Your task to perform on an android device: Turn on the flashlight Image 0: 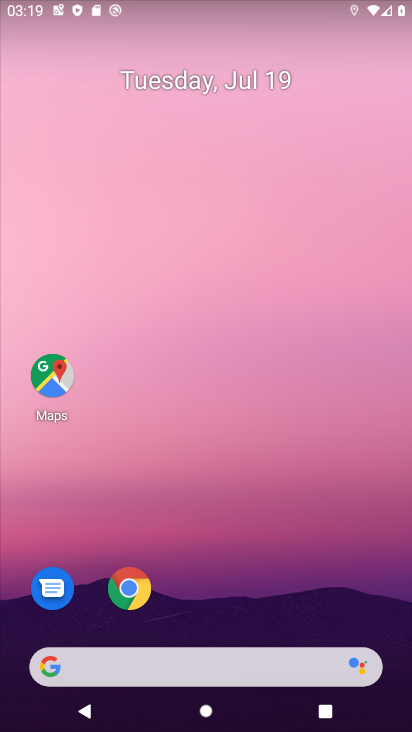
Step 0: drag from (162, 237) to (149, 167)
Your task to perform on an android device: Turn on the flashlight Image 1: 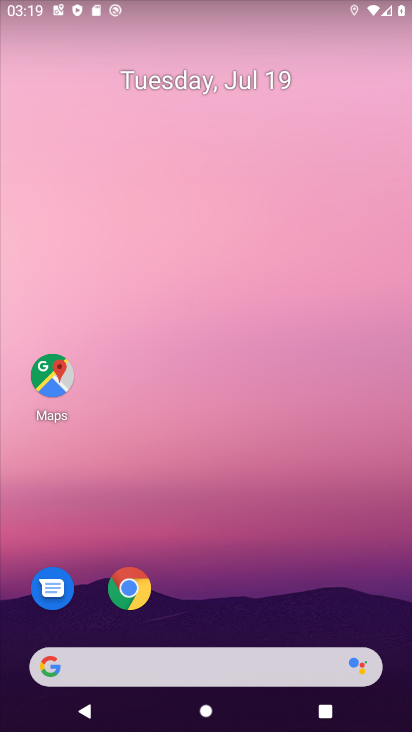
Step 1: drag from (221, 568) to (189, 71)
Your task to perform on an android device: Turn on the flashlight Image 2: 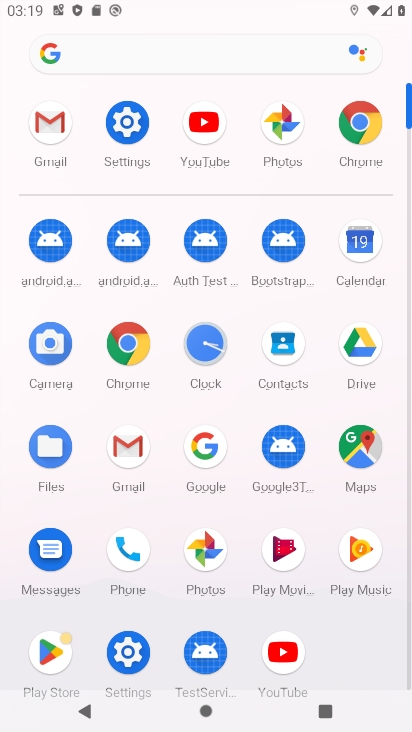
Step 2: click (123, 133)
Your task to perform on an android device: Turn on the flashlight Image 3: 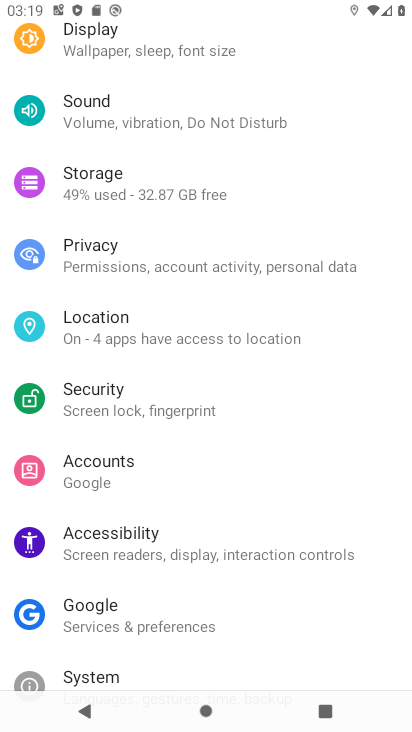
Step 3: click (90, 36)
Your task to perform on an android device: Turn on the flashlight Image 4: 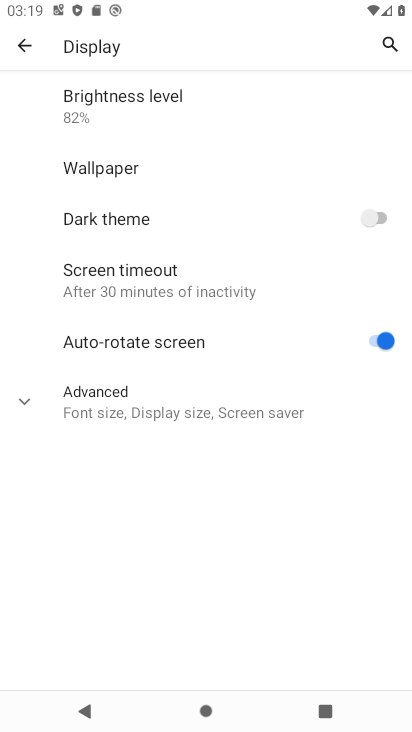
Step 4: task complete